Your task to perform on an android device: Open sound settings Image 0: 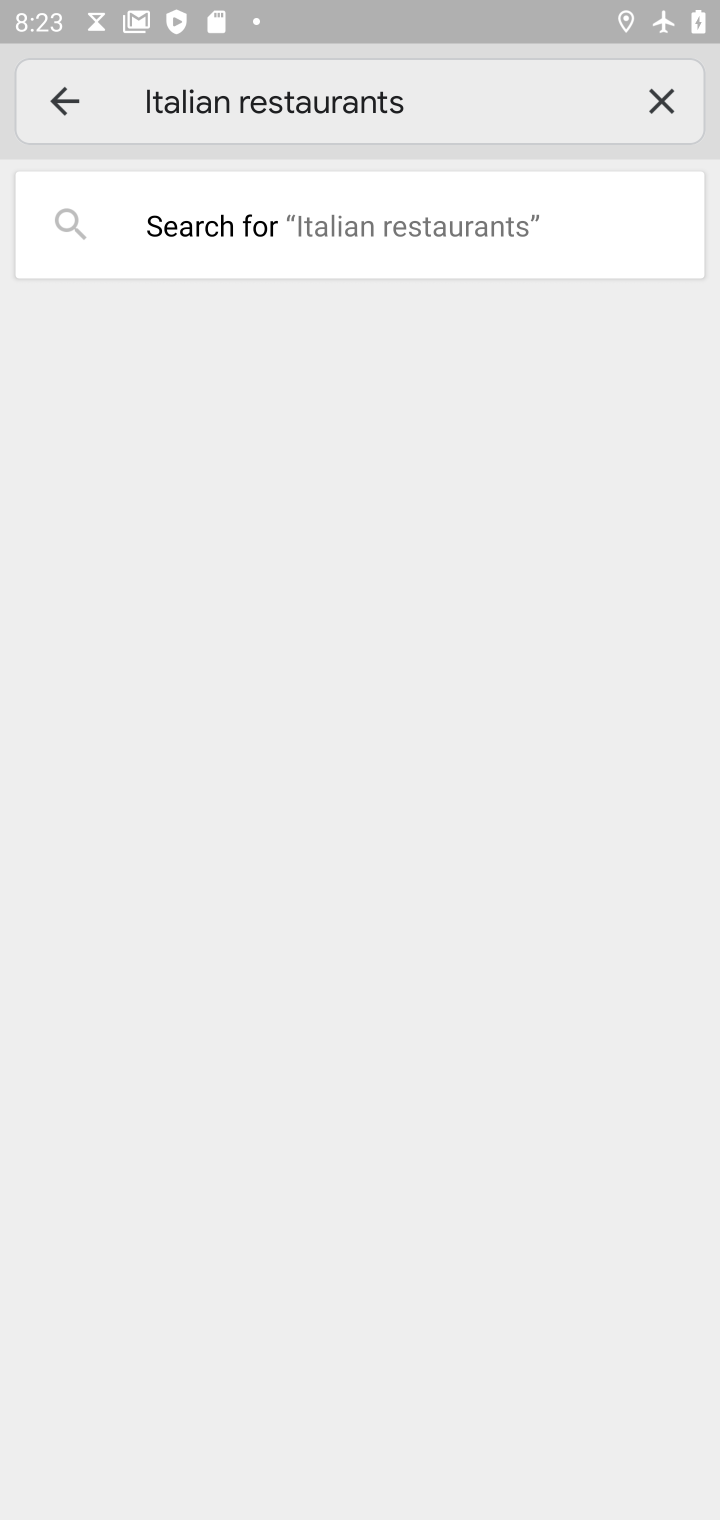
Step 0: press home button
Your task to perform on an android device: Open sound settings Image 1: 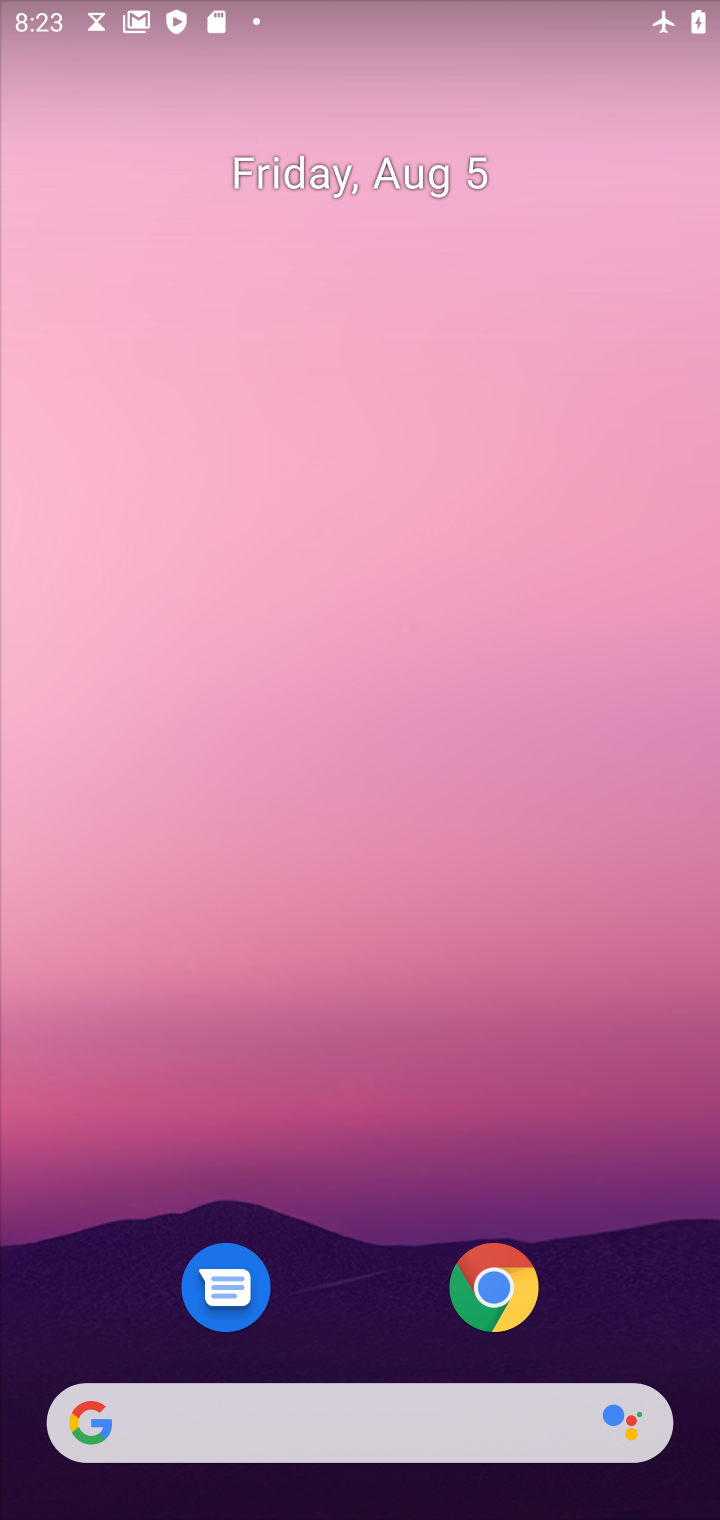
Step 1: drag from (334, 1309) to (287, 134)
Your task to perform on an android device: Open sound settings Image 2: 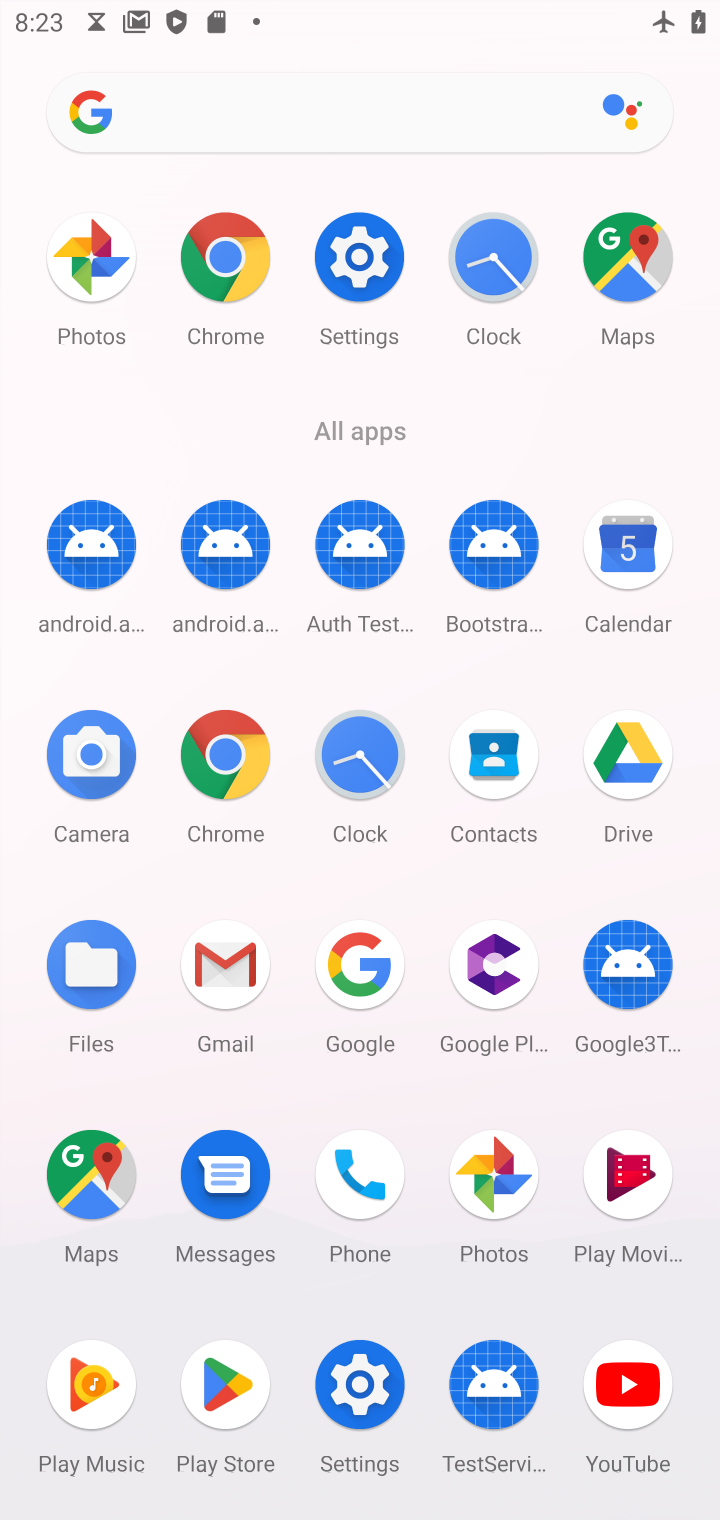
Step 2: click (366, 242)
Your task to perform on an android device: Open sound settings Image 3: 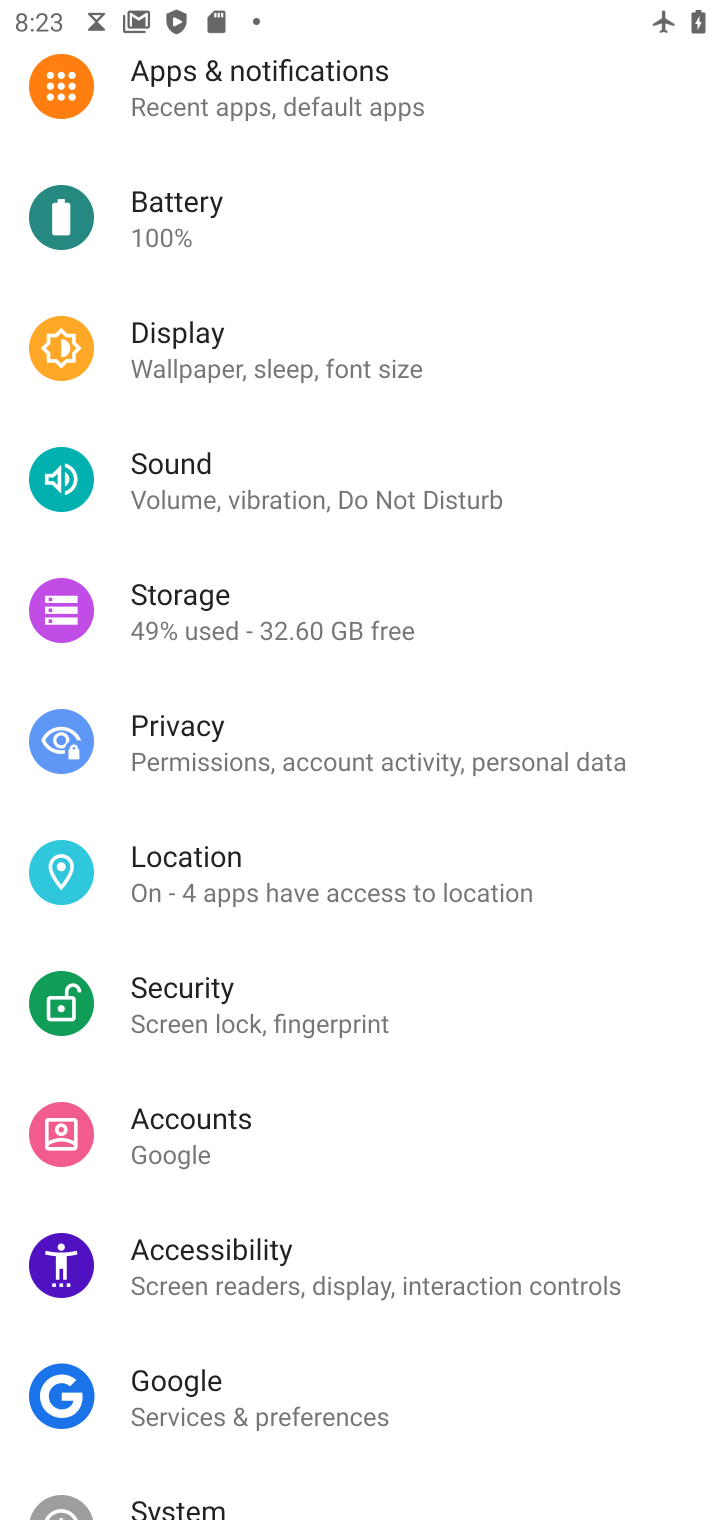
Step 3: click (186, 483)
Your task to perform on an android device: Open sound settings Image 4: 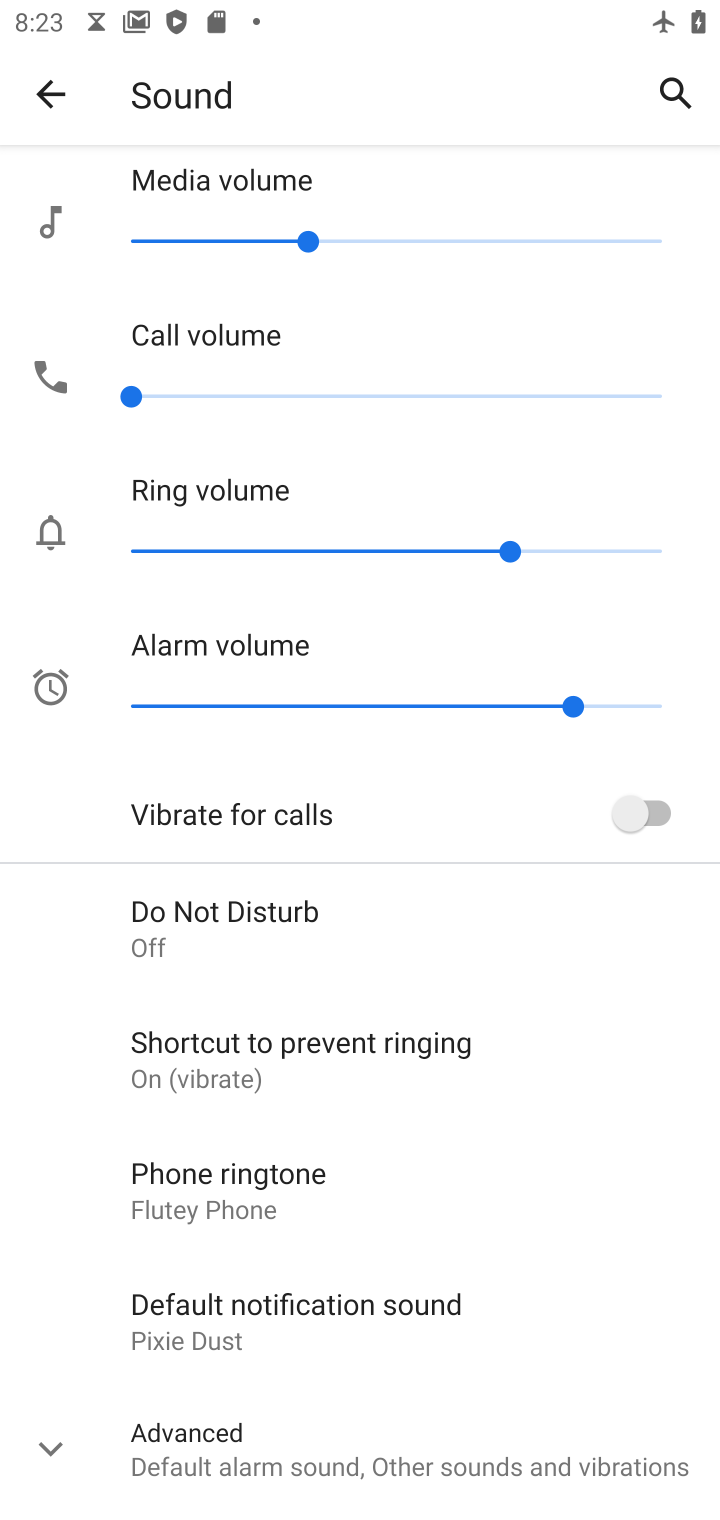
Step 4: task complete